Your task to perform on an android device: Search for the best websites on the internet Image 0: 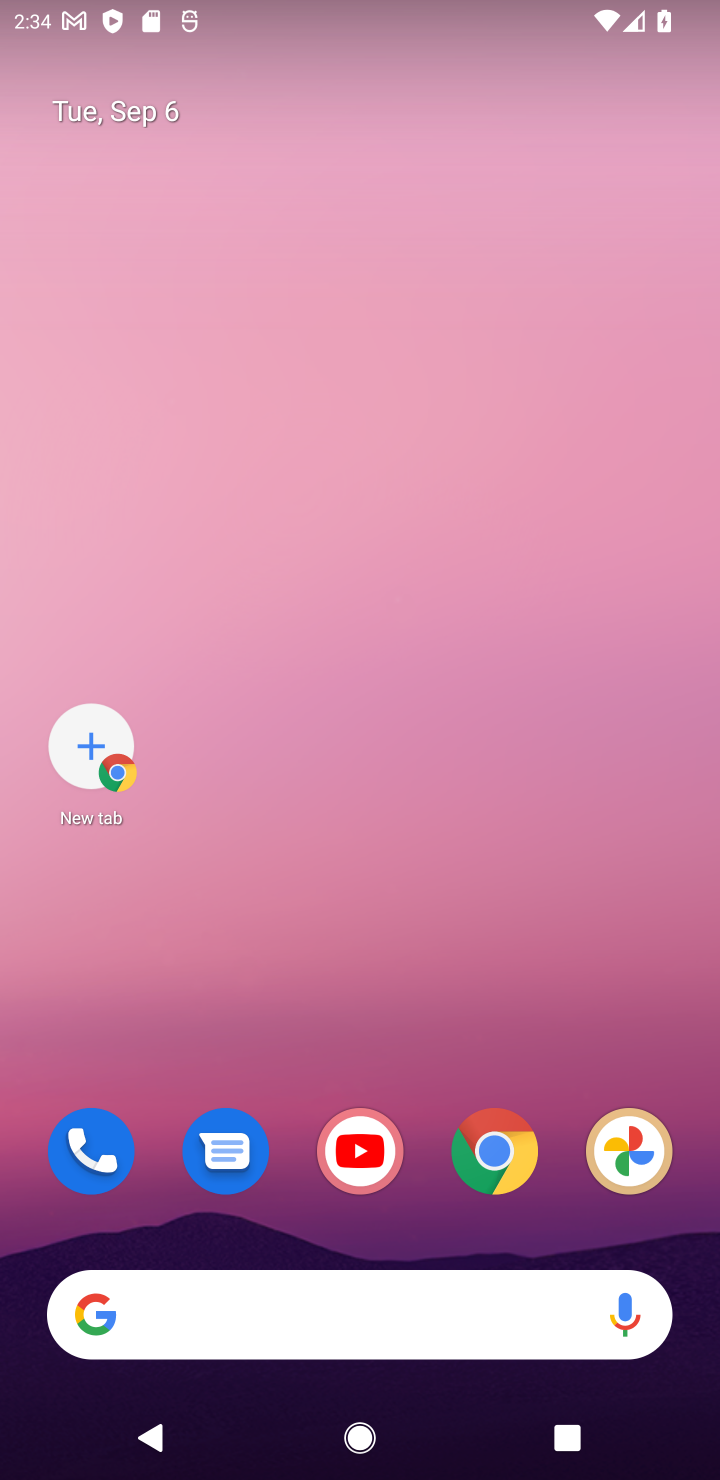
Step 0: click (504, 1136)
Your task to perform on an android device: Search for the best websites on the internet Image 1: 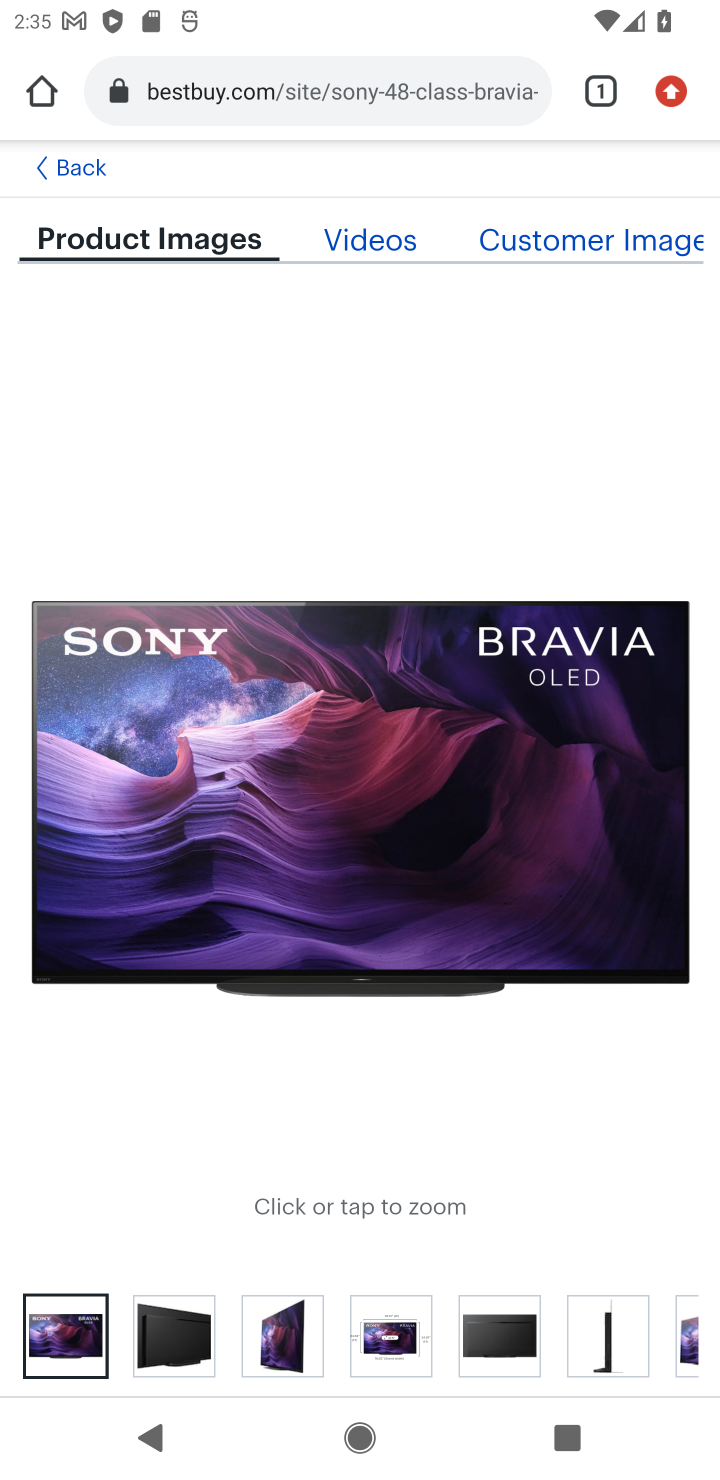
Step 1: click (267, 85)
Your task to perform on an android device: Search for the best websites on the internet Image 2: 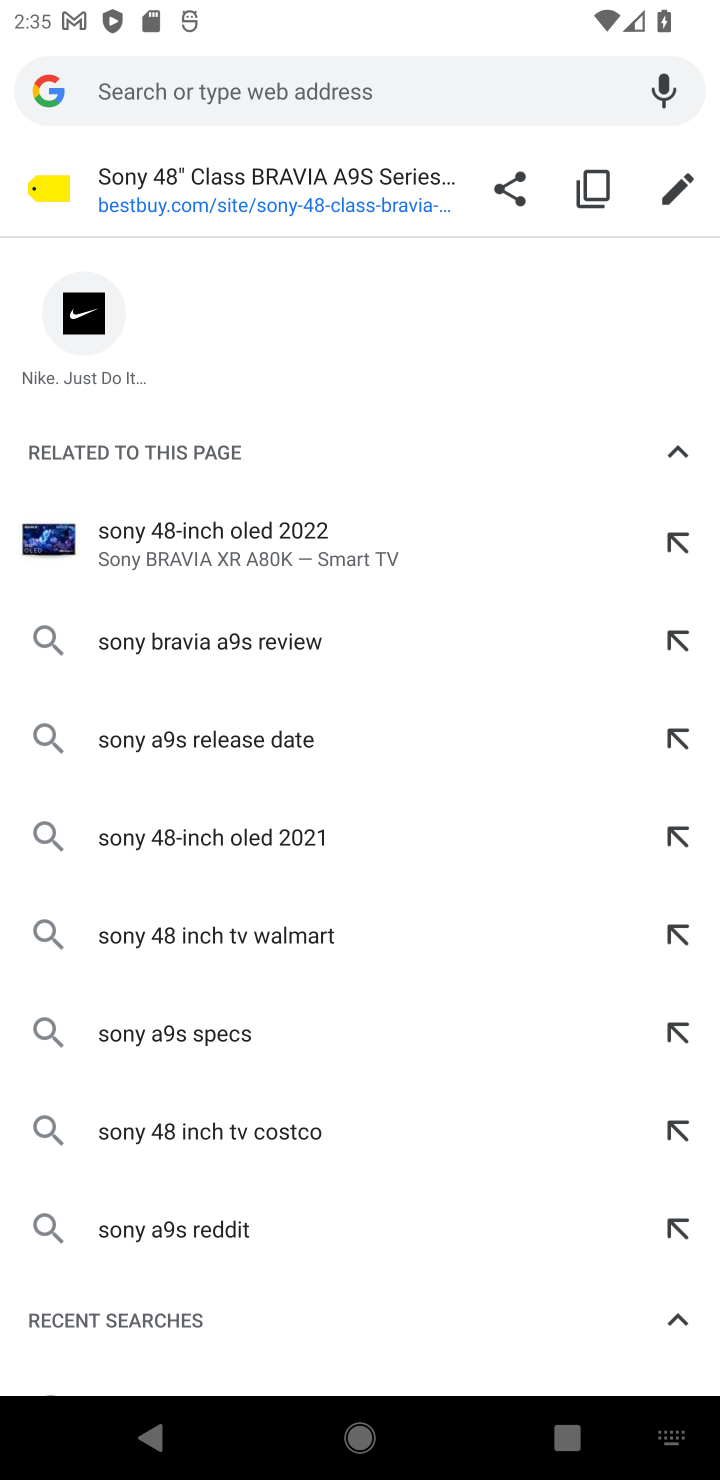
Step 2: type "best website on internet"
Your task to perform on an android device: Search for the best websites on the internet Image 3: 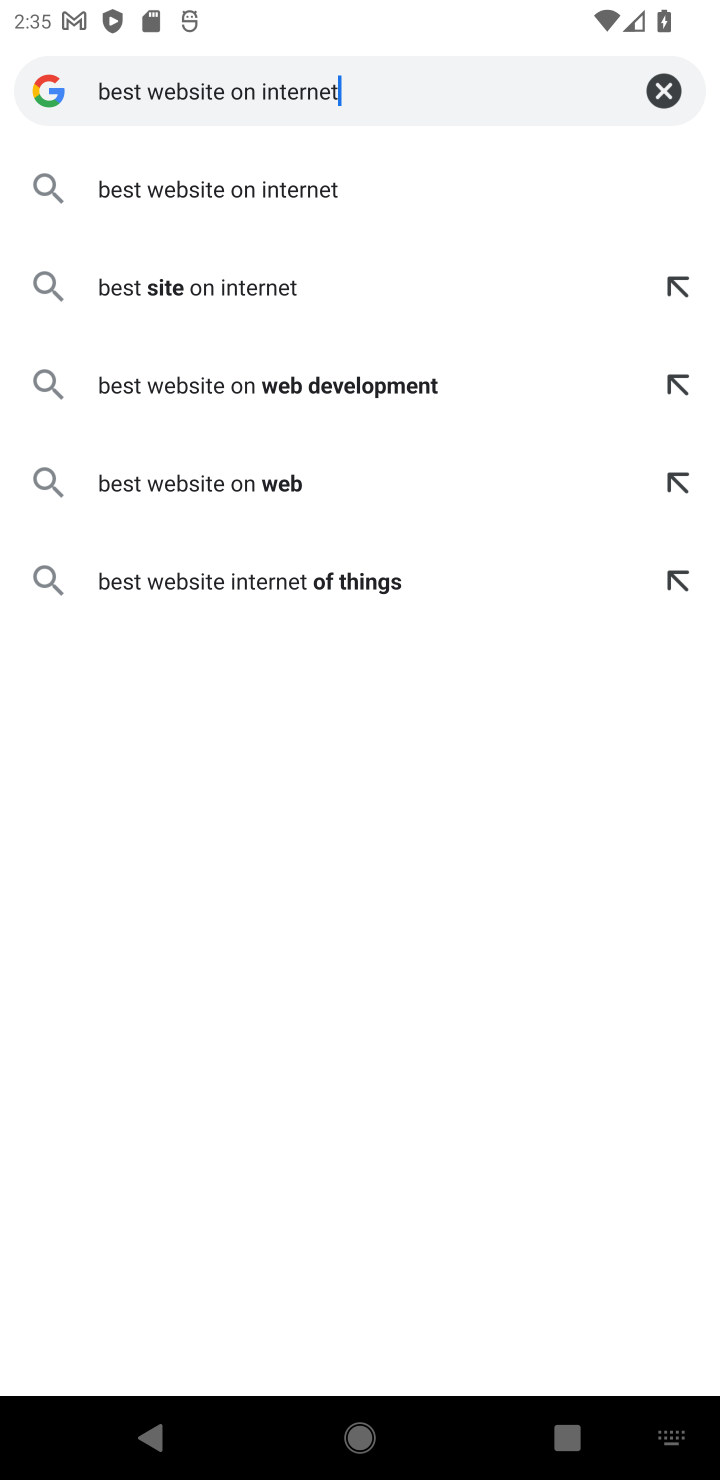
Step 3: click (190, 195)
Your task to perform on an android device: Search for the best websites on the internet Image 4: 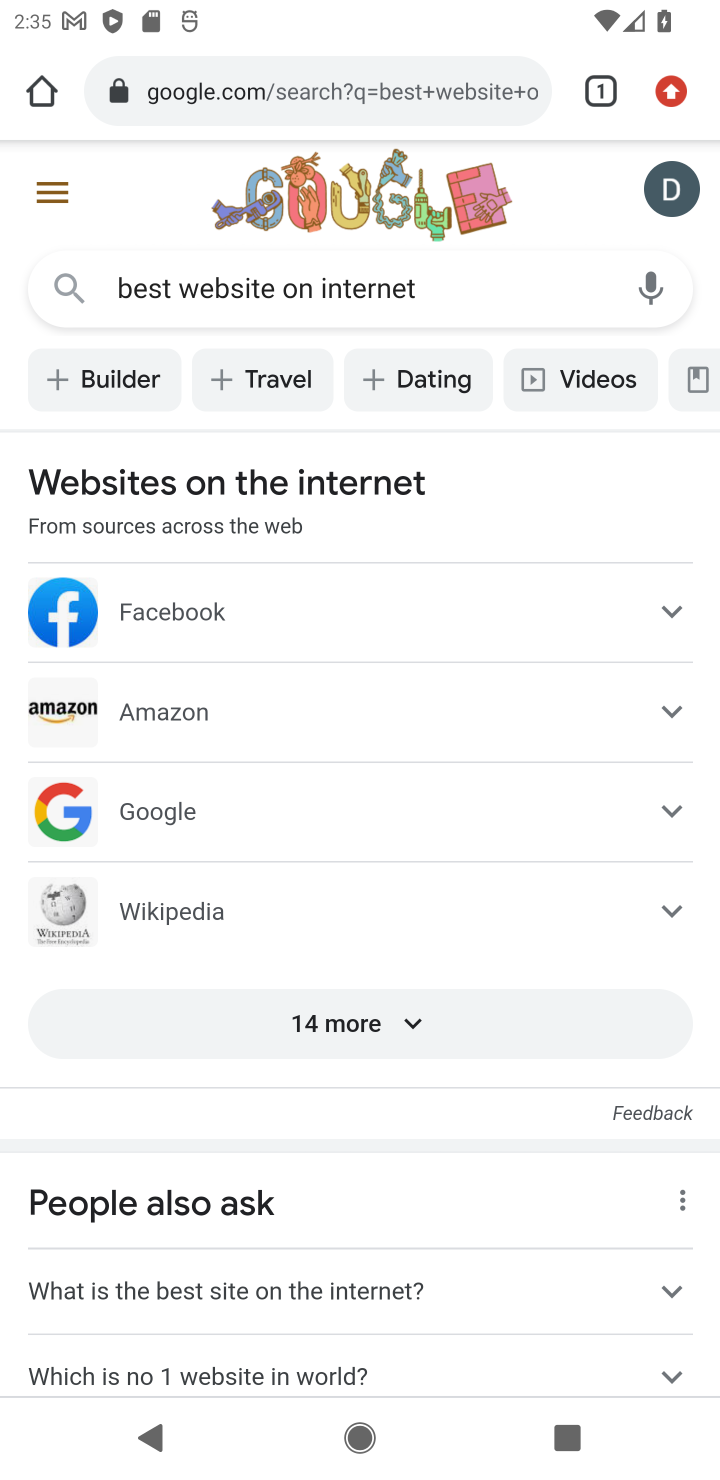
Step 4: task complete